Your task to perform on an android device: find snoozed emails in the gmail app Image 0: 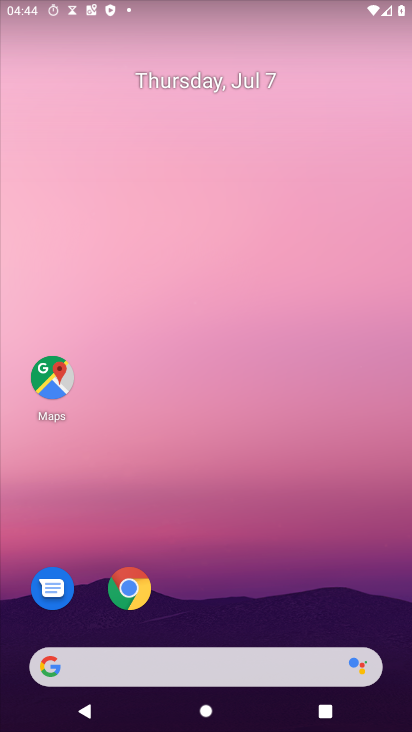
Step 0: press home button
Your task to perform on an android device: find snoozed emails in the gmail app Image 1: 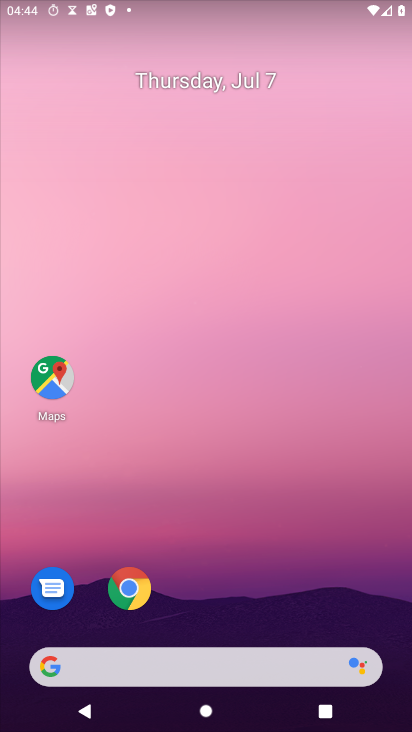
Step 1: drag from (256, 621) to (231, 179)
Your task to perform on an android device: find snoozed emails in the gmail app Image 2: 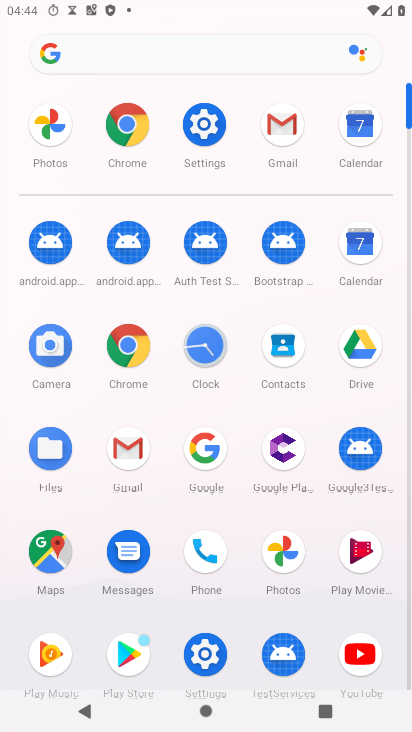
Step 2: click (284, 119)
Your task to perform on an android device: find snoozed emails in the gmail app Image 3: 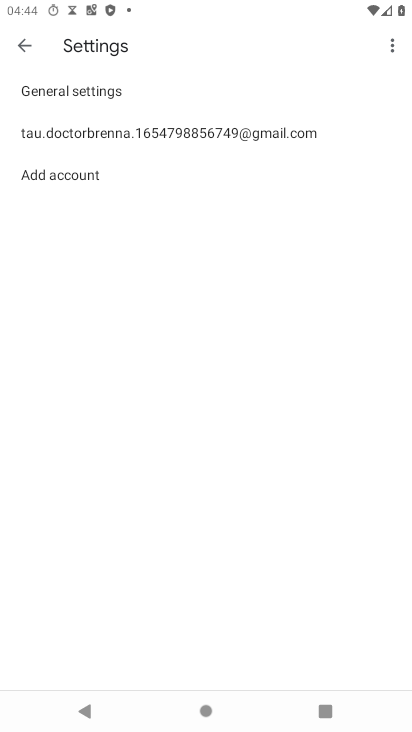
Step 3: click (23, 48)
Your task to perform on an android device: find snoozed emails in the gmail app Image 4: 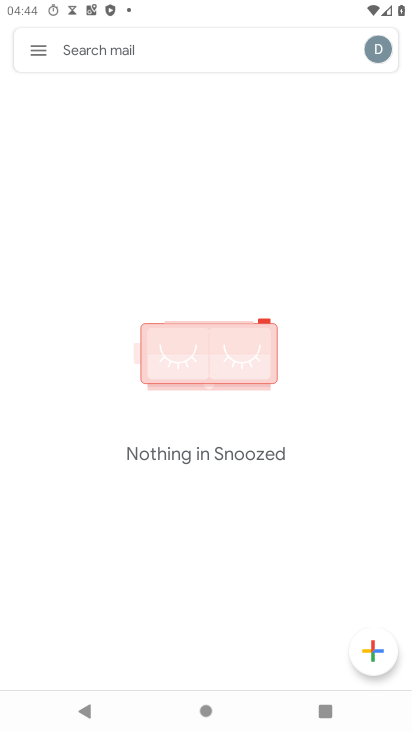
Step 4: click (27, 54)
Your task to perform on an android device: find snoozed emails in the gmail app Image 5: 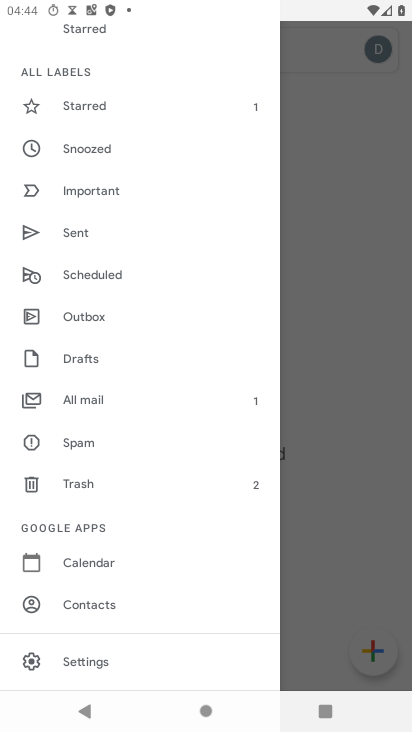
Step 5: click (89, 150)
Your task to perform on an android device: find snoozed emails in the gmail app Image 6: 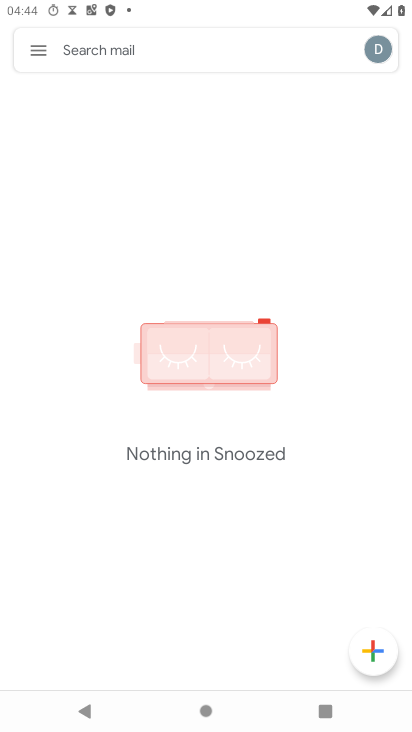
Step 6: task complete